Your task to perform on an android device: Open maps Image 0: 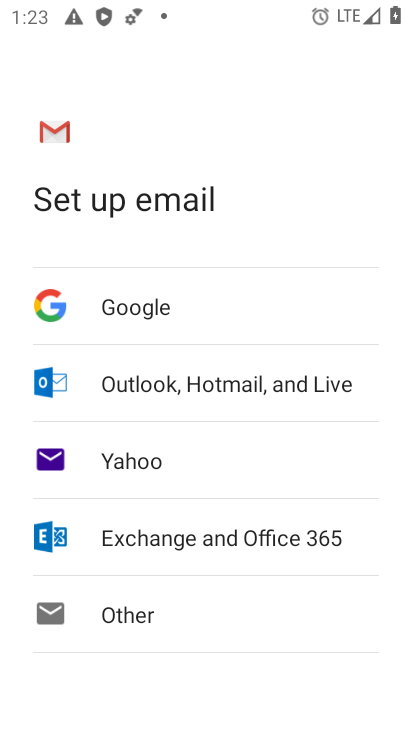
Step 0: press home button
Your task to perform on an android device: Open maps Image 1: 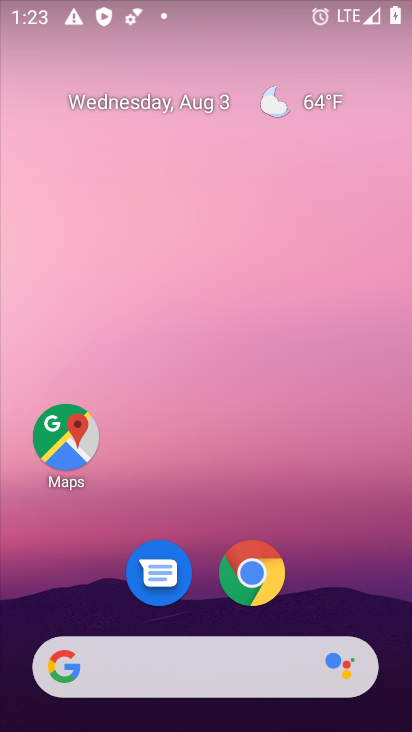
Step 1: drag from (205, 630) to (264, 89)
Your task to perform on an android device: Open maps Image 2: 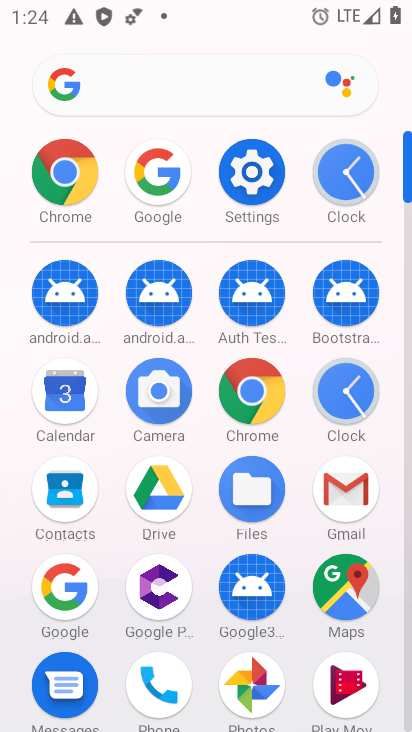
Step 2: click (338, 594)
Your task to perform on an android device: Open maps Image 3: 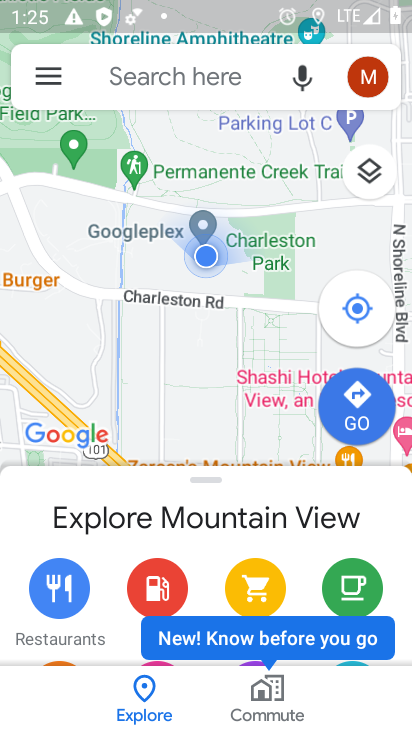
Step 3: task complete